Your task to perform on an android device: Open Google Chrome and open the bookmarks view Image 0: 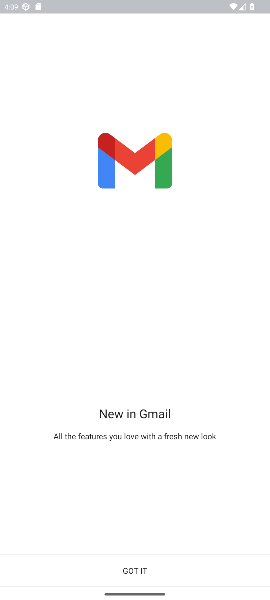
Step 0: press home button
Your task to perform on an android device: Open Google Chrome and open the bookmarks view Image 1: 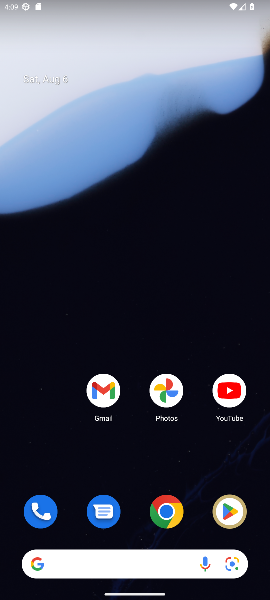
Step 1: click (157, 500)
Your task to perform on an android device: Open Google Chrome and open the bookmarks view Image 2: 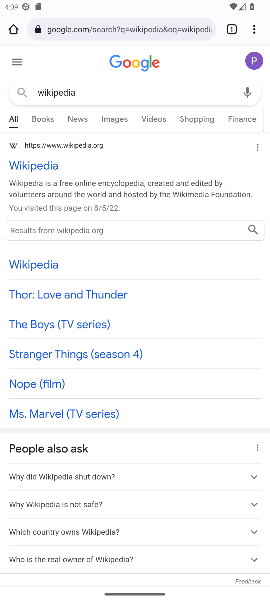
Step 2: click (261, 28)
Your task to perform on an android device: Open Google Chrome and open the bookmarks view Image 3: 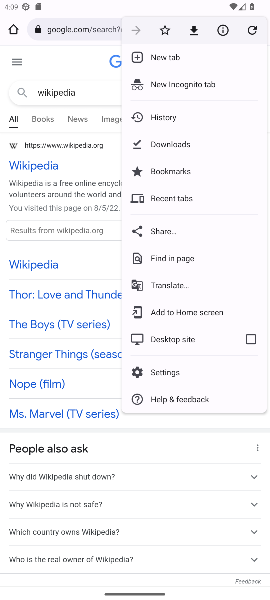
Step 3: click (171, 171)
Your task to perform on an android device: Open Google Chrome and open the bookmarks view Image 4: 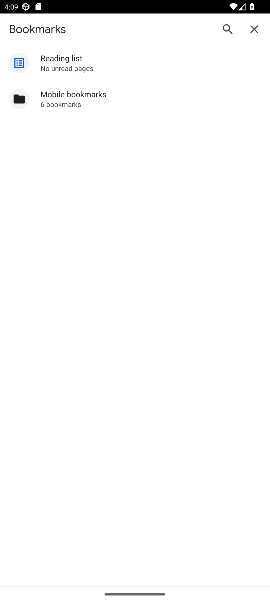
Step 4: task complete